Your task to perform on an android device: Search for the new ikea dresser Image 0: 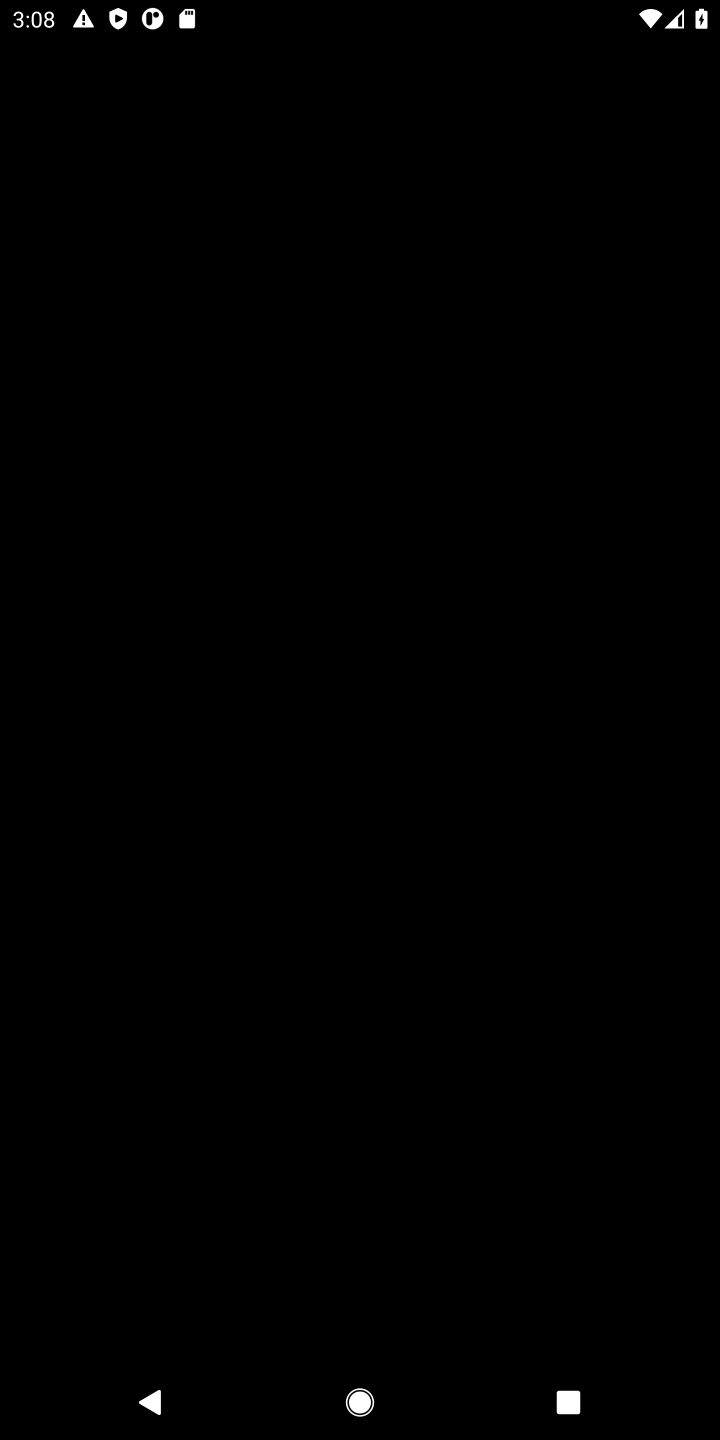
Step 0: press home button
Your task to perform on an android device: Search for the new ikea dresser Image 1: 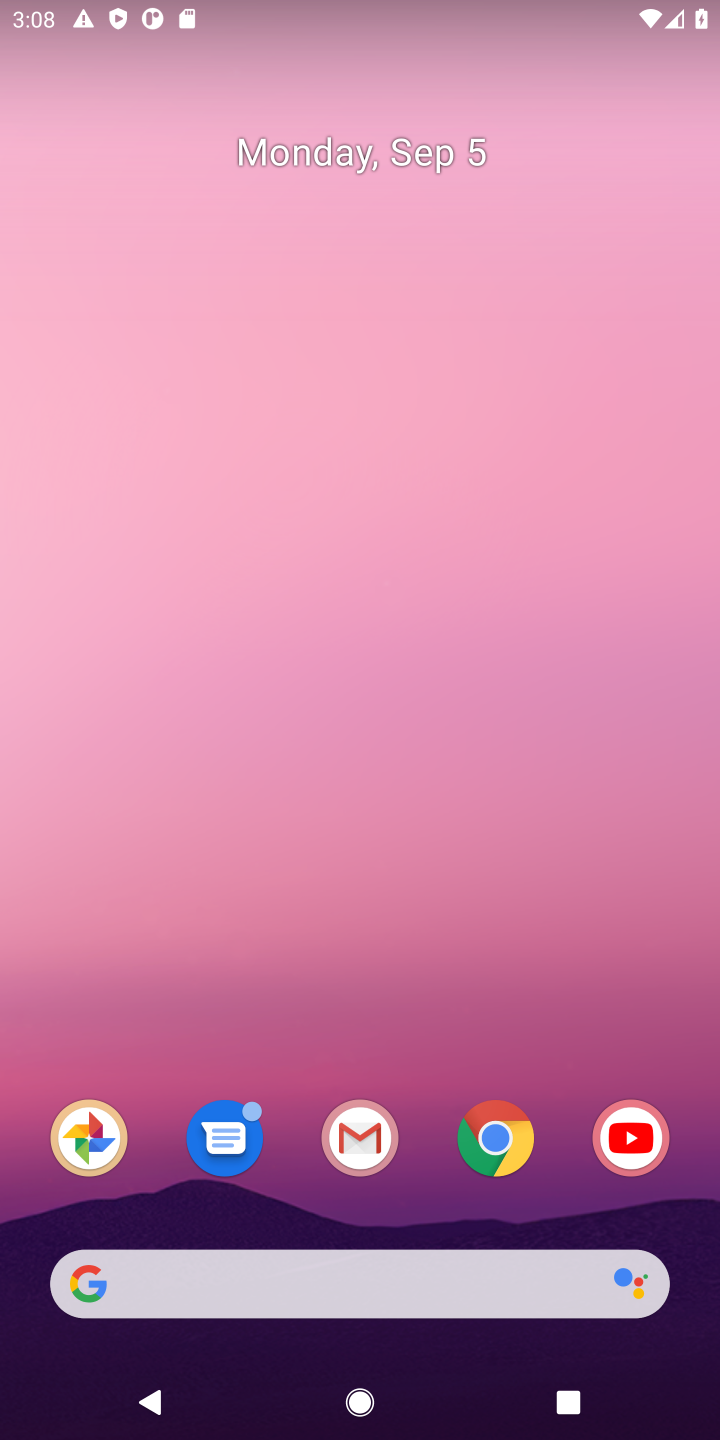
Step 1: click (491, 1136)
Your task to perform on an android device: Search for the new ikea dresser Image 2: 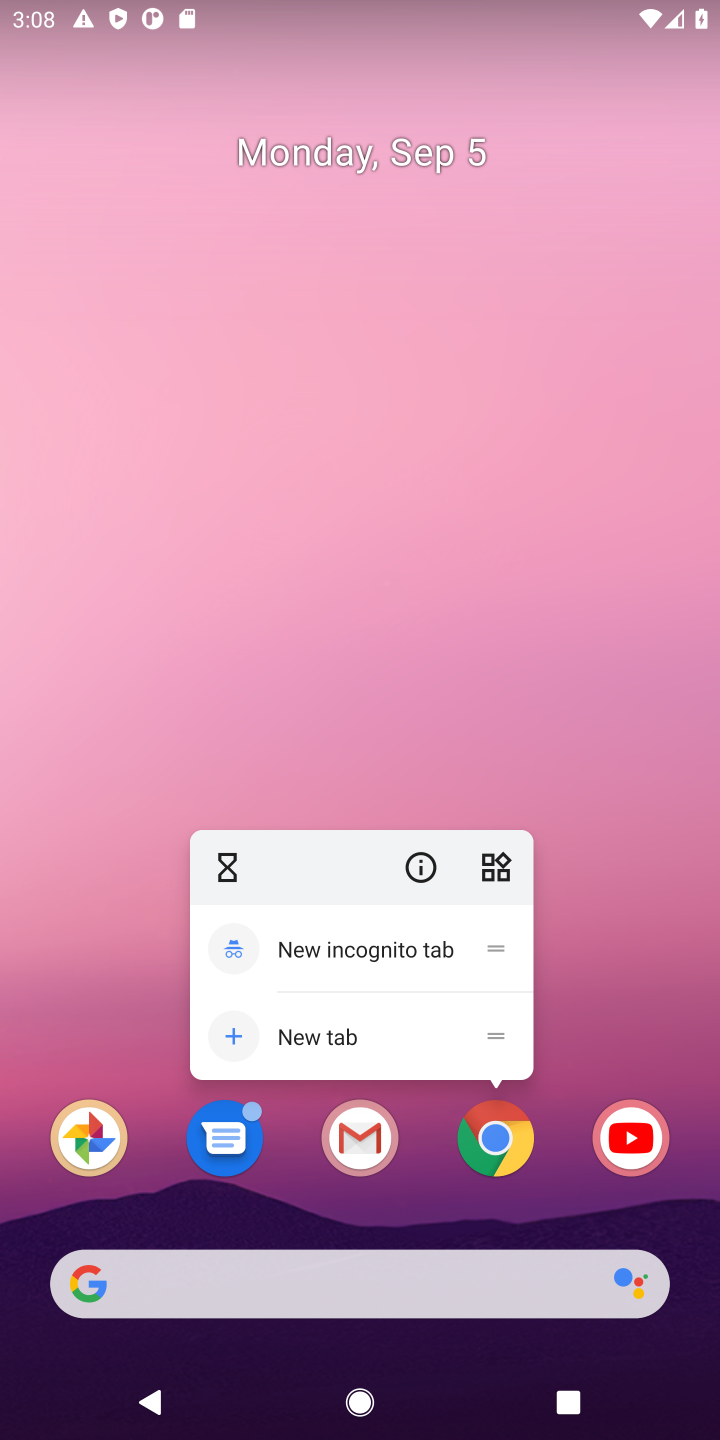
Step 2: click (491, 1136)
Your task to perform on an android device: Search for the new ikea dresser Image 3: 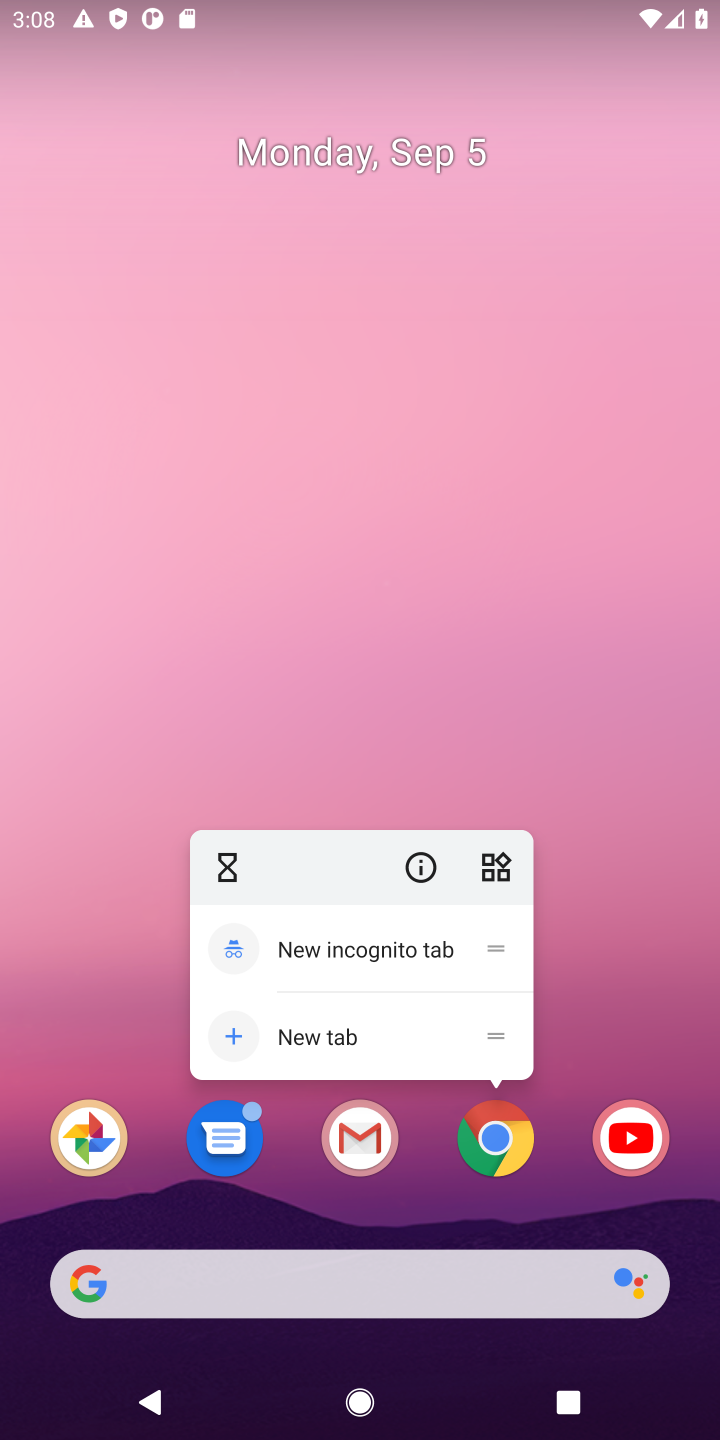
Step 3: click (500, 1138)
Your task to perform on an android device: Search for the new ikea dresser Image 4: 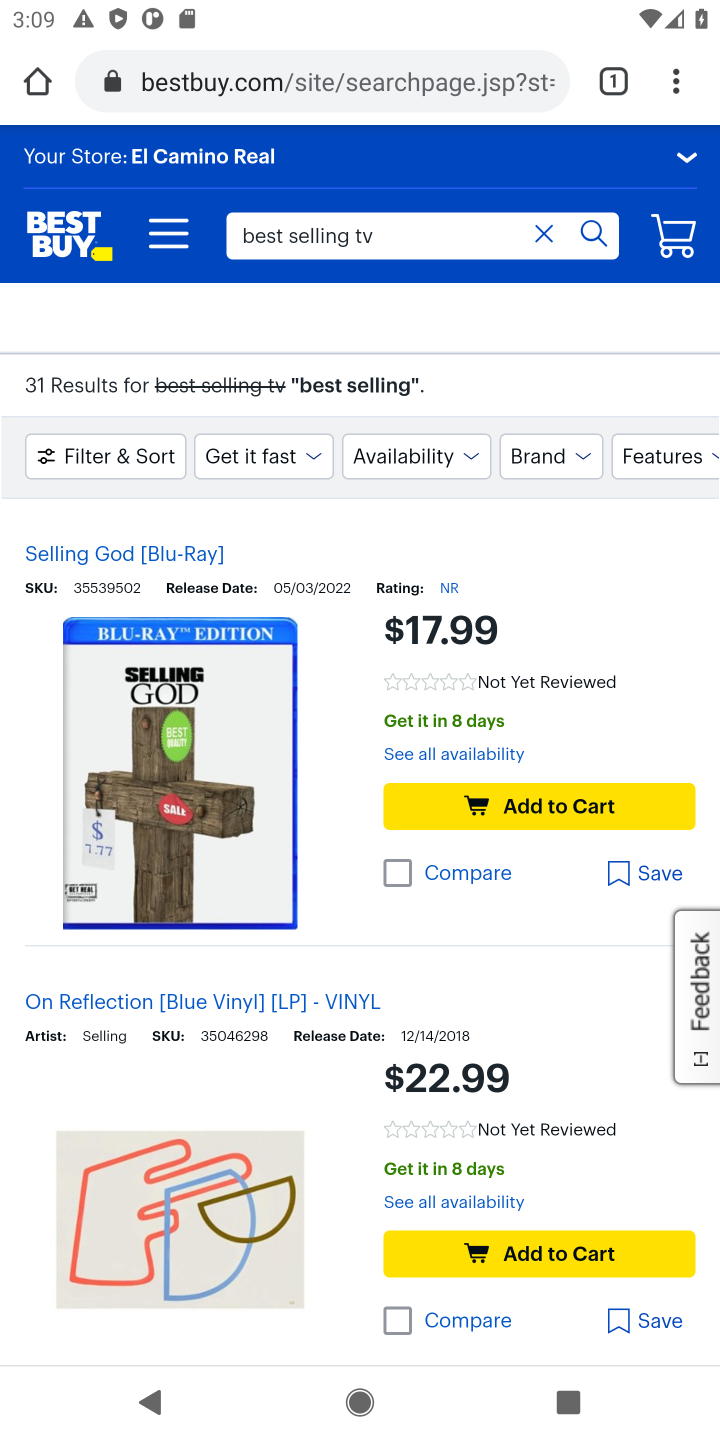
Step 4: click (442, 87)
Your task to perform on an android device: Search for the new ikea dresser Image 5: 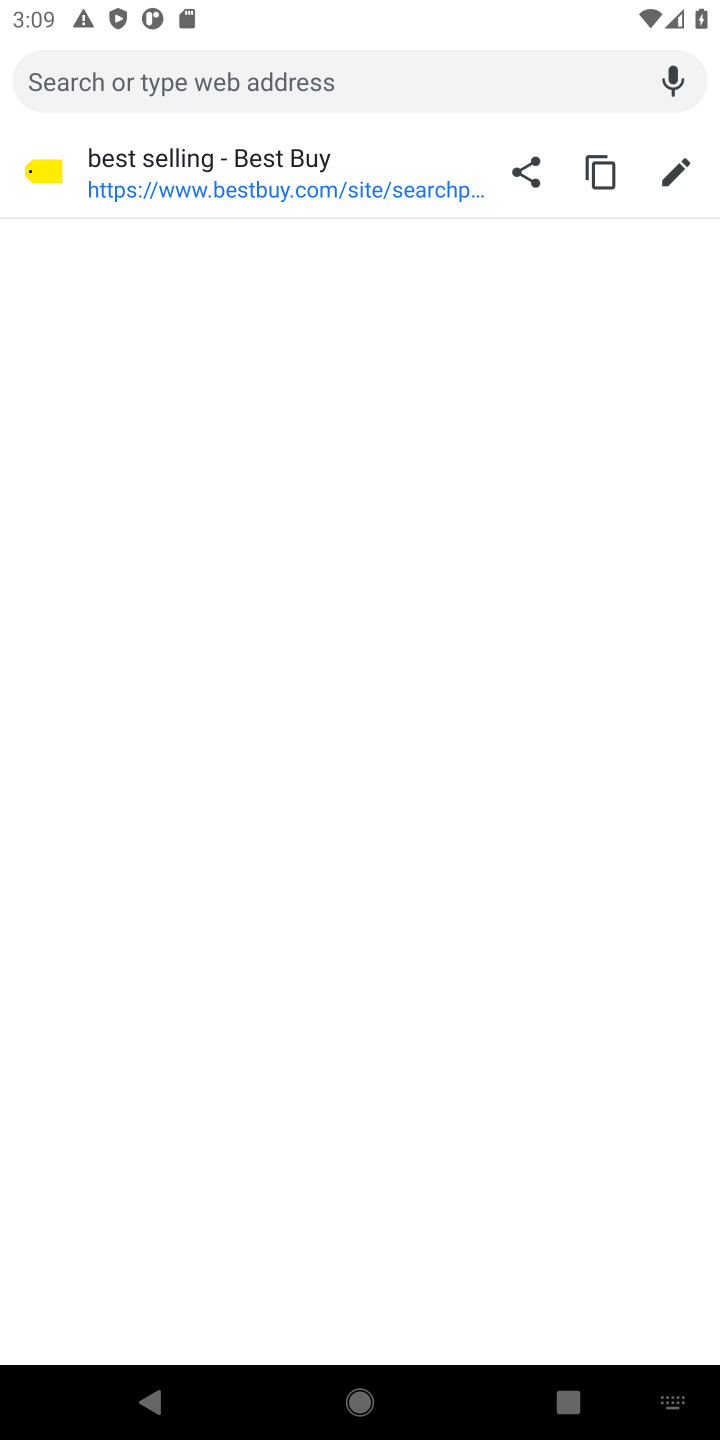
Step 5: click (405, 95)
Your task to perform on an android device: Search for the new ikea dresser Image 6: 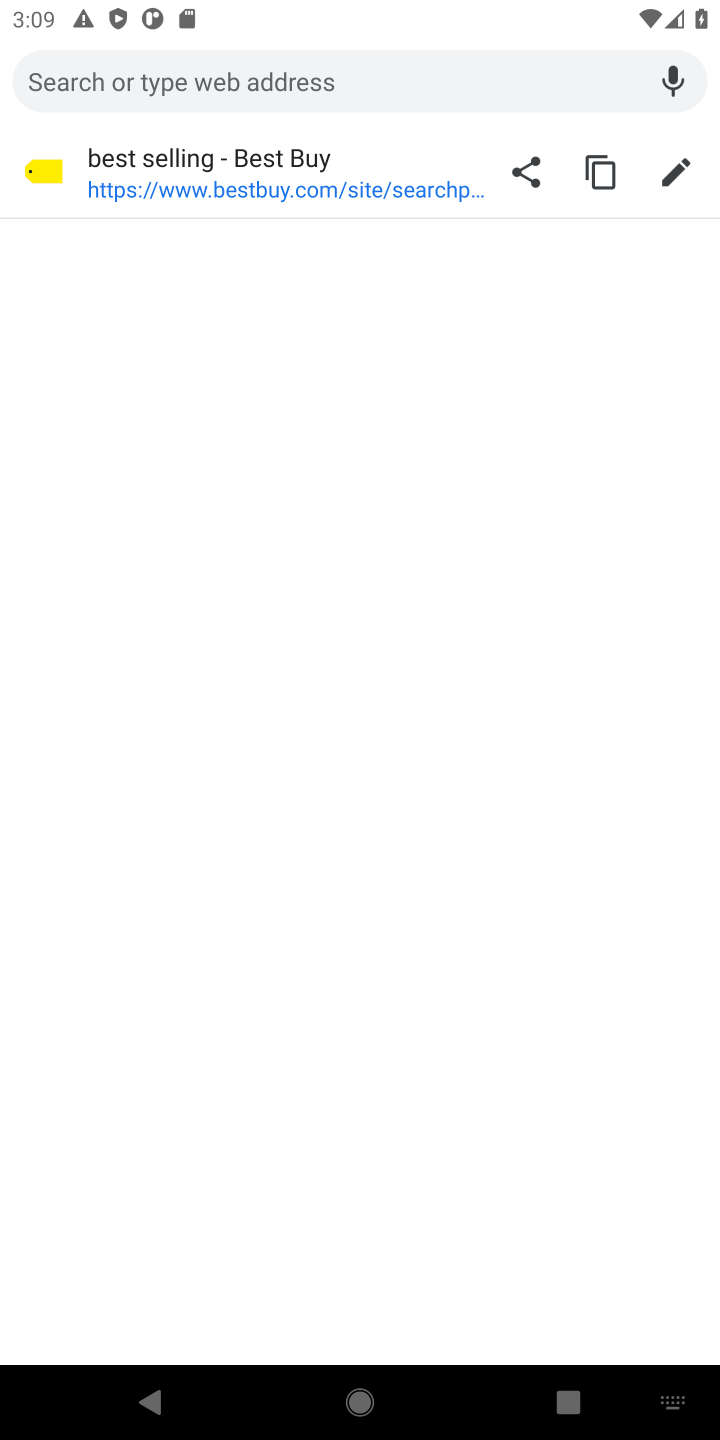
Step 6: type " new ikea dresser"
Your task to perform on an android device: Search for the new ikea dresser Image 7: 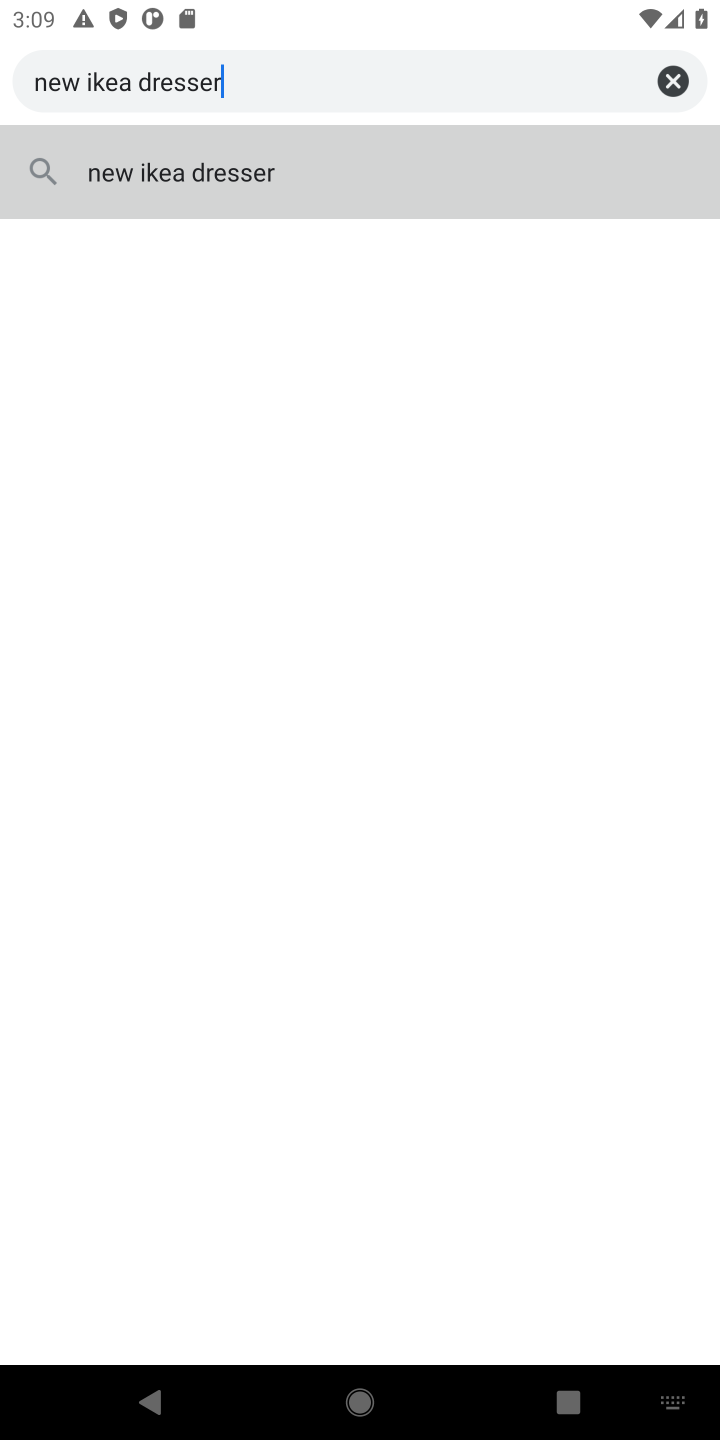
Step 7: click (348, 171)
Your task to perform on an android device: Search for the new ikea dresser Image 8: 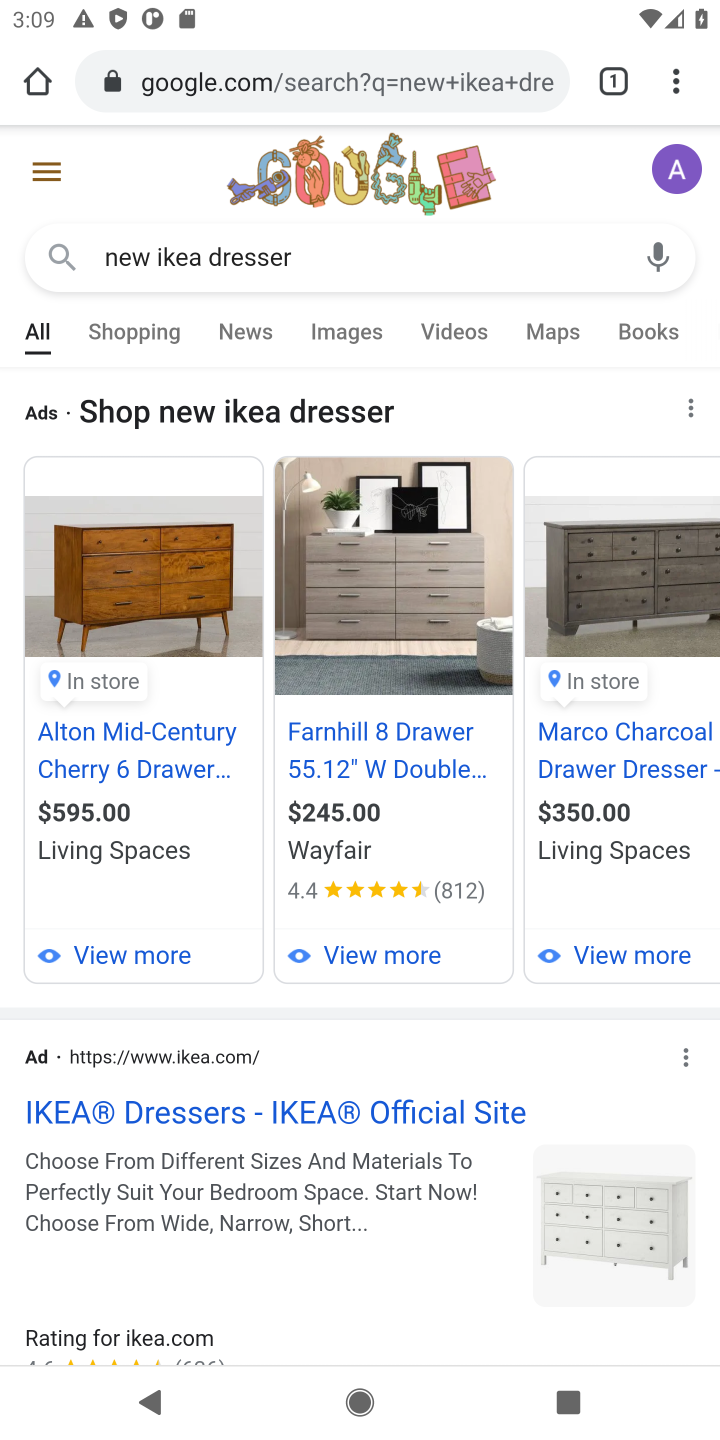
Step 8: drag from (647, 895) to (206, 983)
Your task to perform on an android device: Search for the new ikea dresser Image 9: 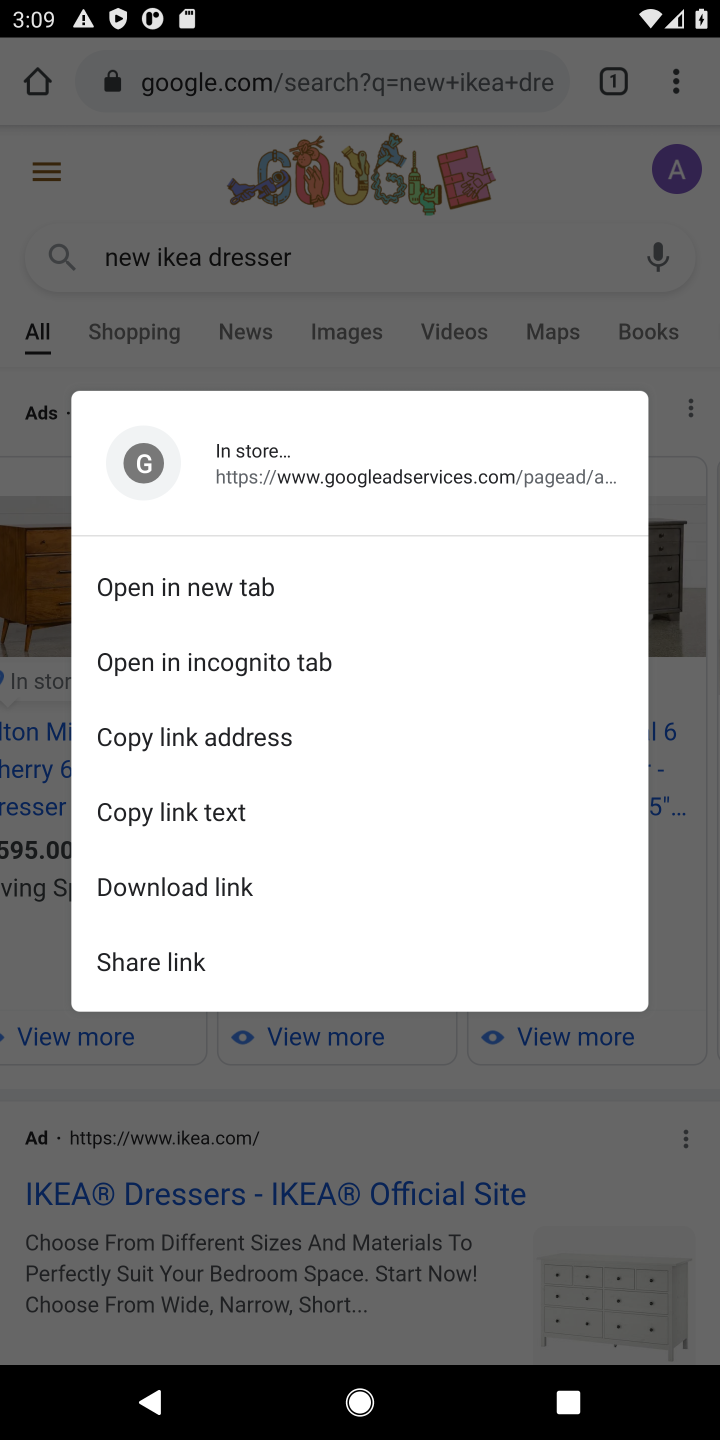
Step 9: click (590, 1146)
Your task to perform on an android device: Search for the new ikea dresser Image 10: 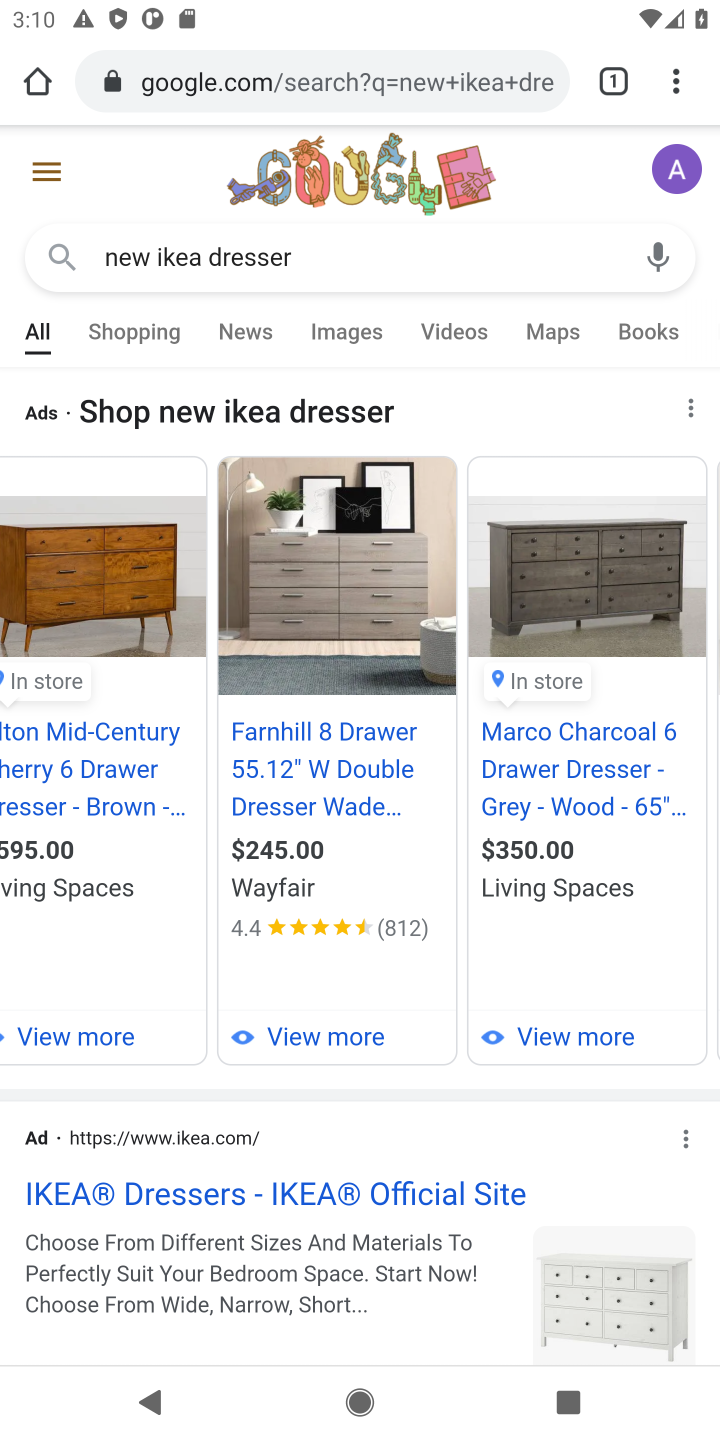
Step 10: task complete